Your task to perform on an android device: Add "bose soundlink mini" to the cart on ebay.com, then select checkout. Image 0: 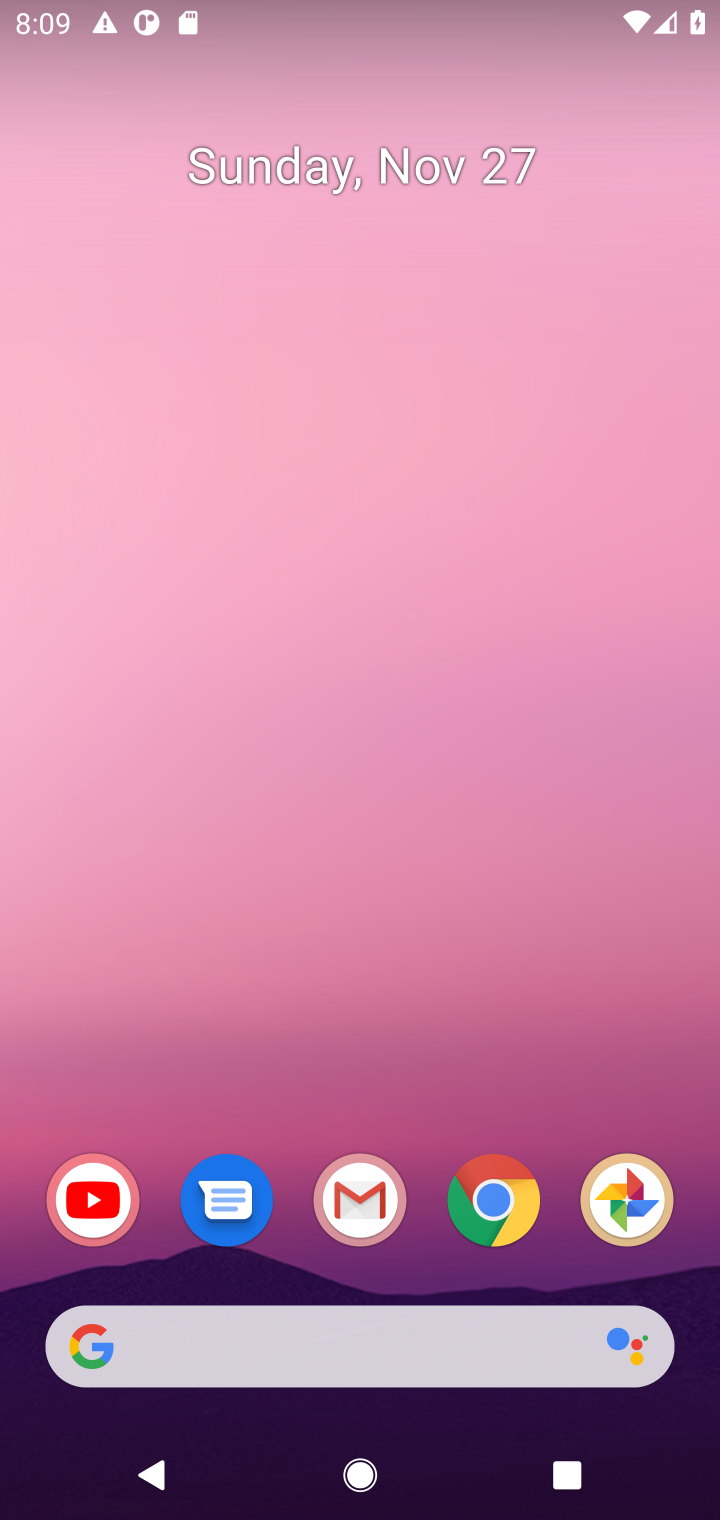
Step 0: click (494, 1199)
Your task to perform on an android device: Add "bose soundlink mini" to the cart on ebay.com, then select checkout. Image 1: 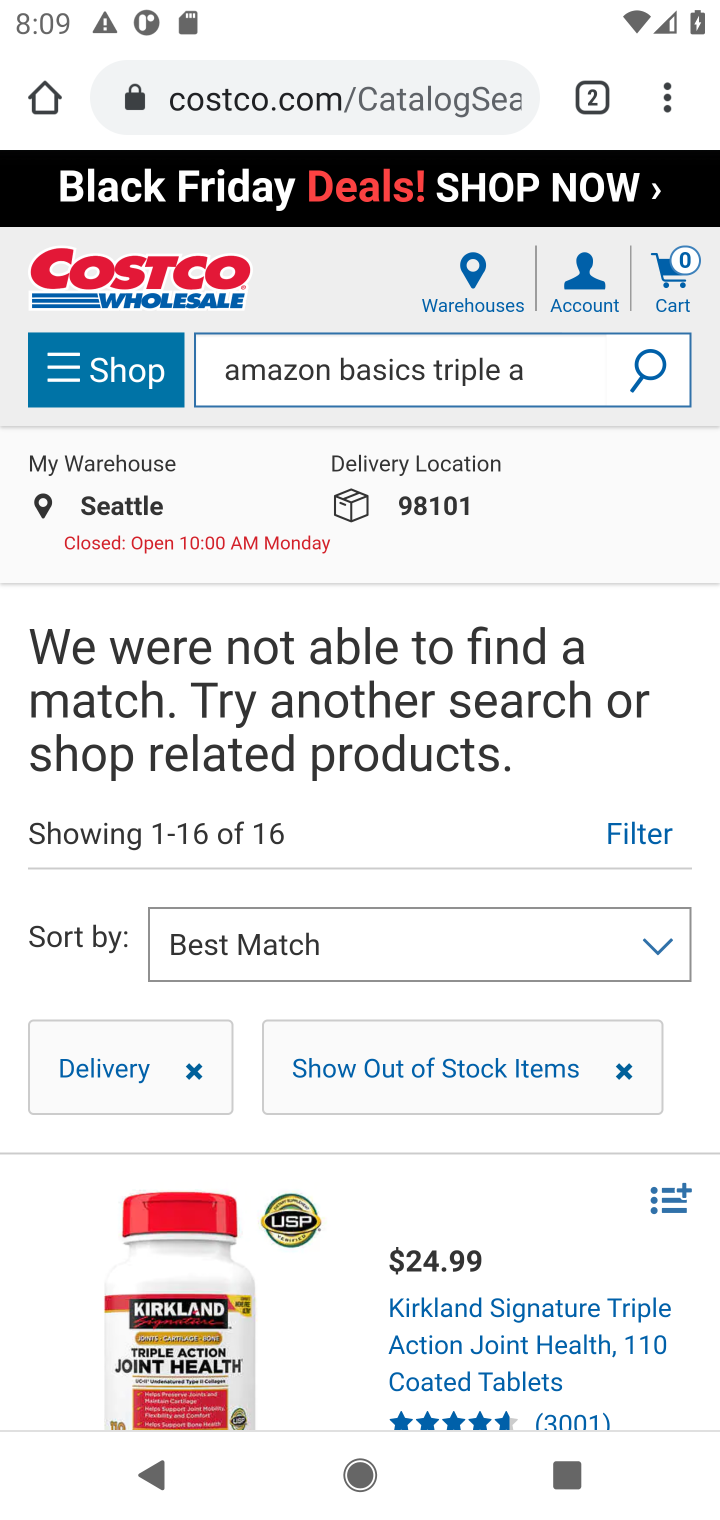
Step 1: click (375, 106)
Your task to perform on an android device: Add "bose soundlink mini" to the cart on ebay.com, then select checkout. Image 2: 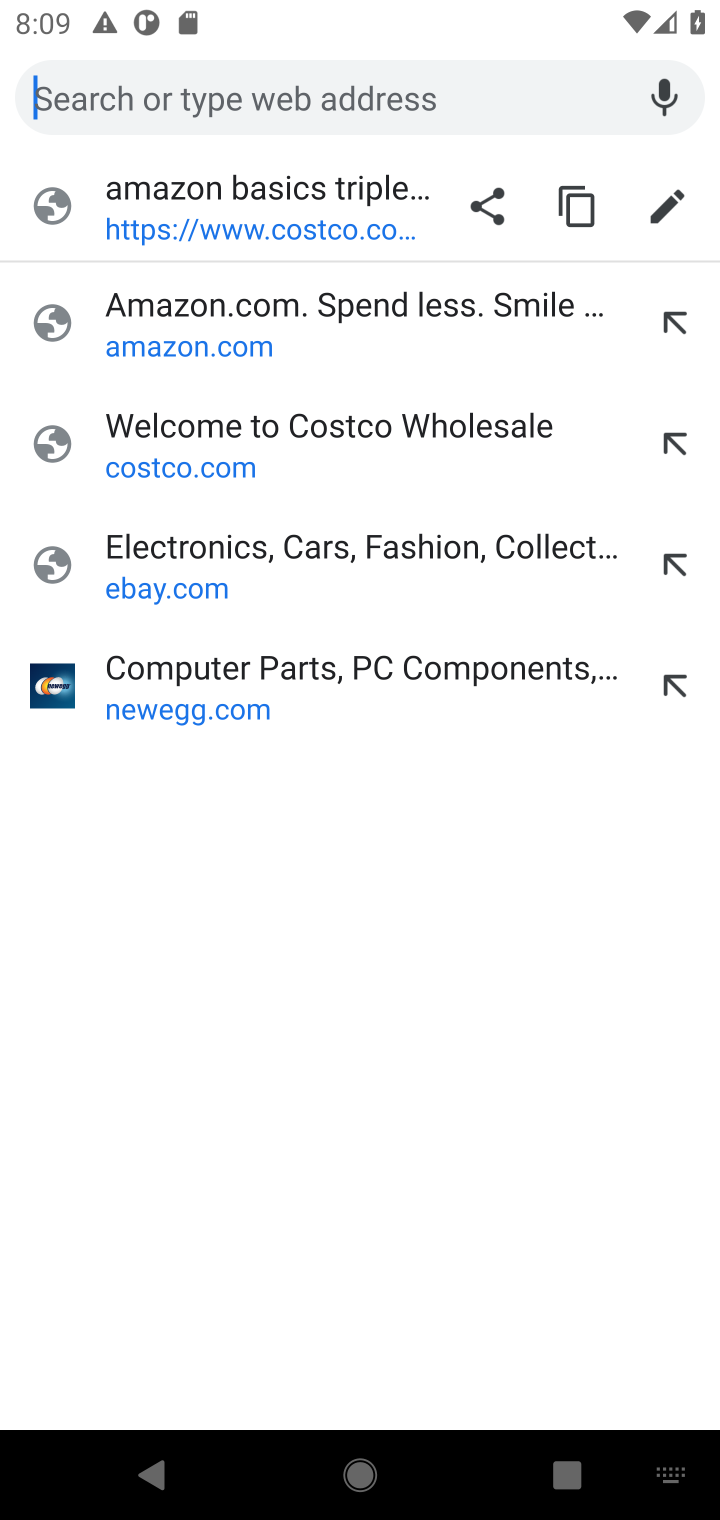
Step 2: click (143, 589)
Your task to perform on an android device: Add "bose soundlink mini" to the cart on ebay.com, then select checkout. Image 3: 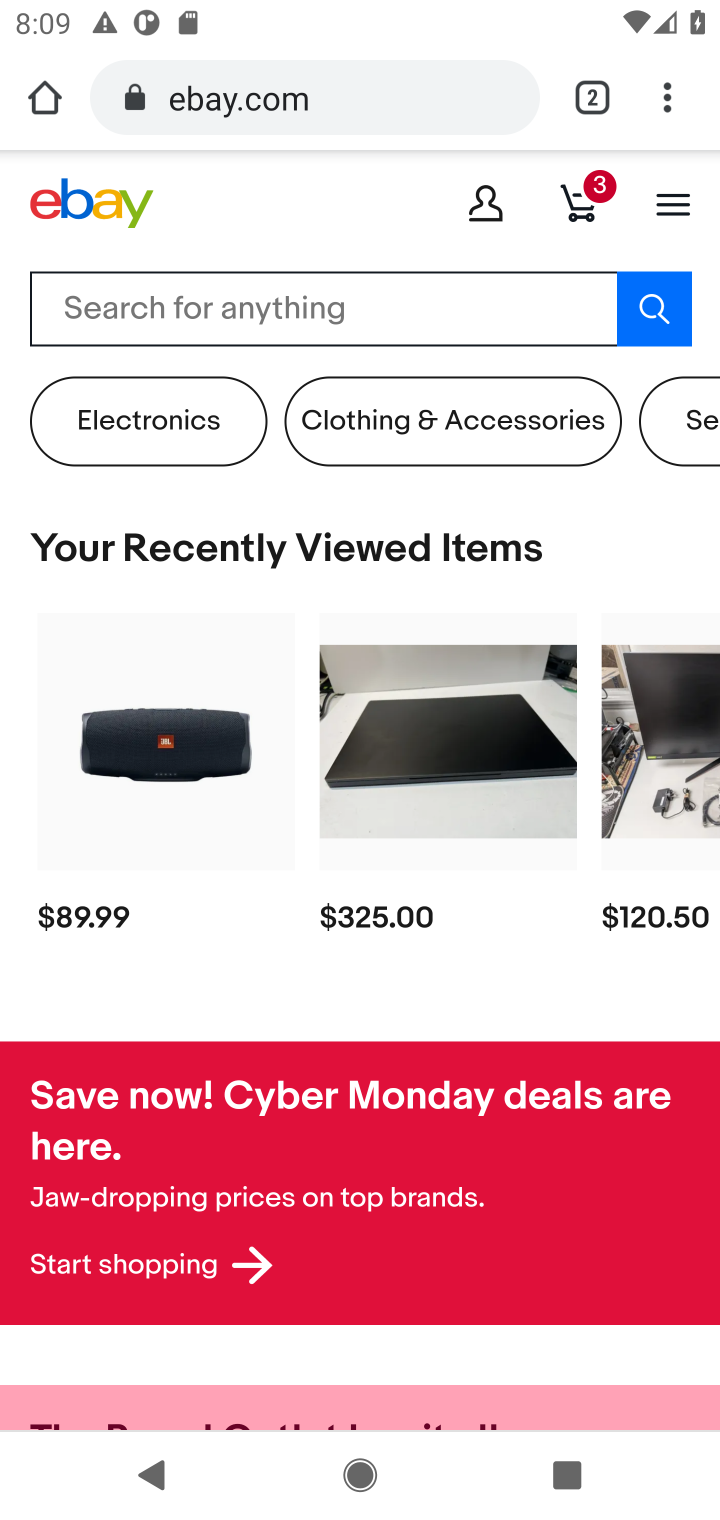
Step 3: click (214, 297)
Your task to perform on an android device: Add "bose soundlink mini" to the cart on ebay.com, then select checkout. Image 4: 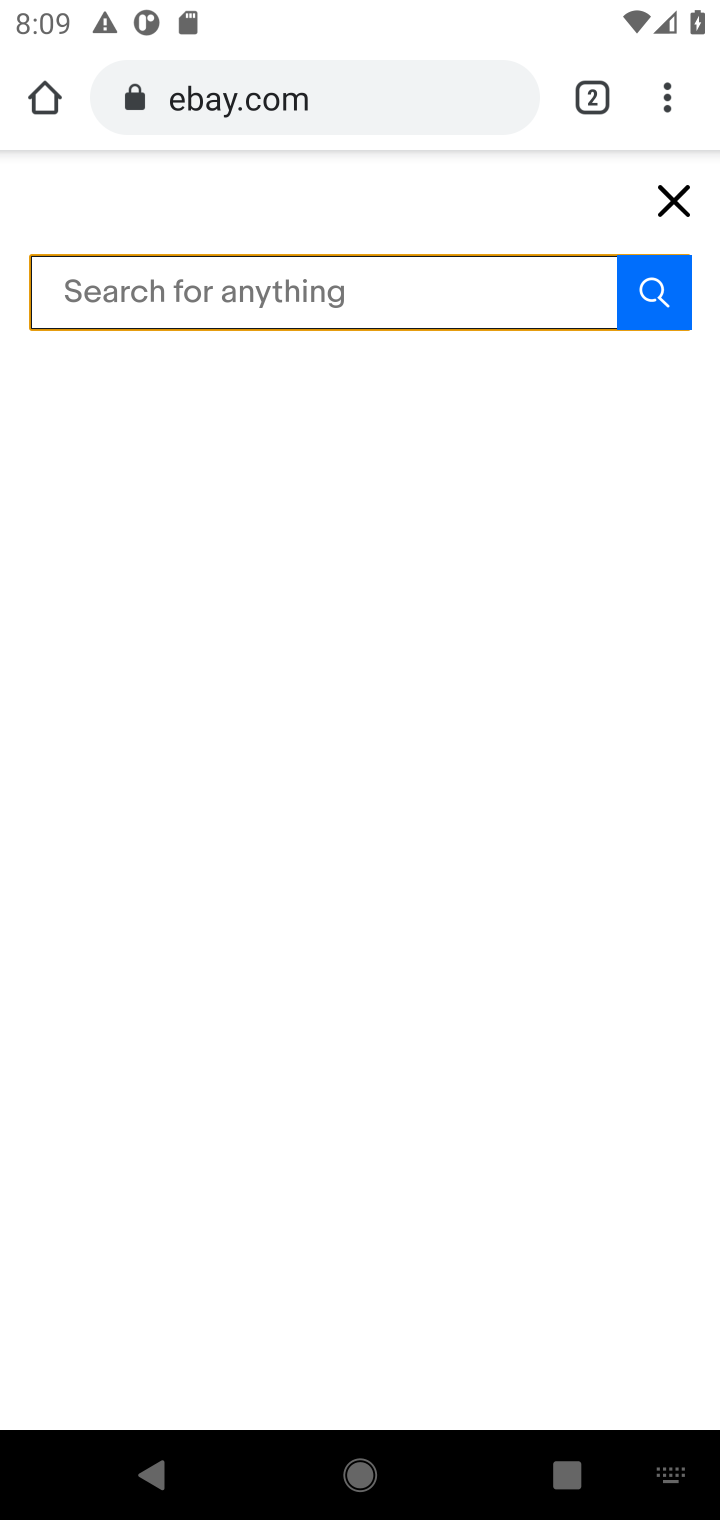
Step 4: type "bose soundlink mini"
Your task to perform on an android device: Add "bose soundlink mini" to the cart on ebay.com, then select checkout. Image 5: 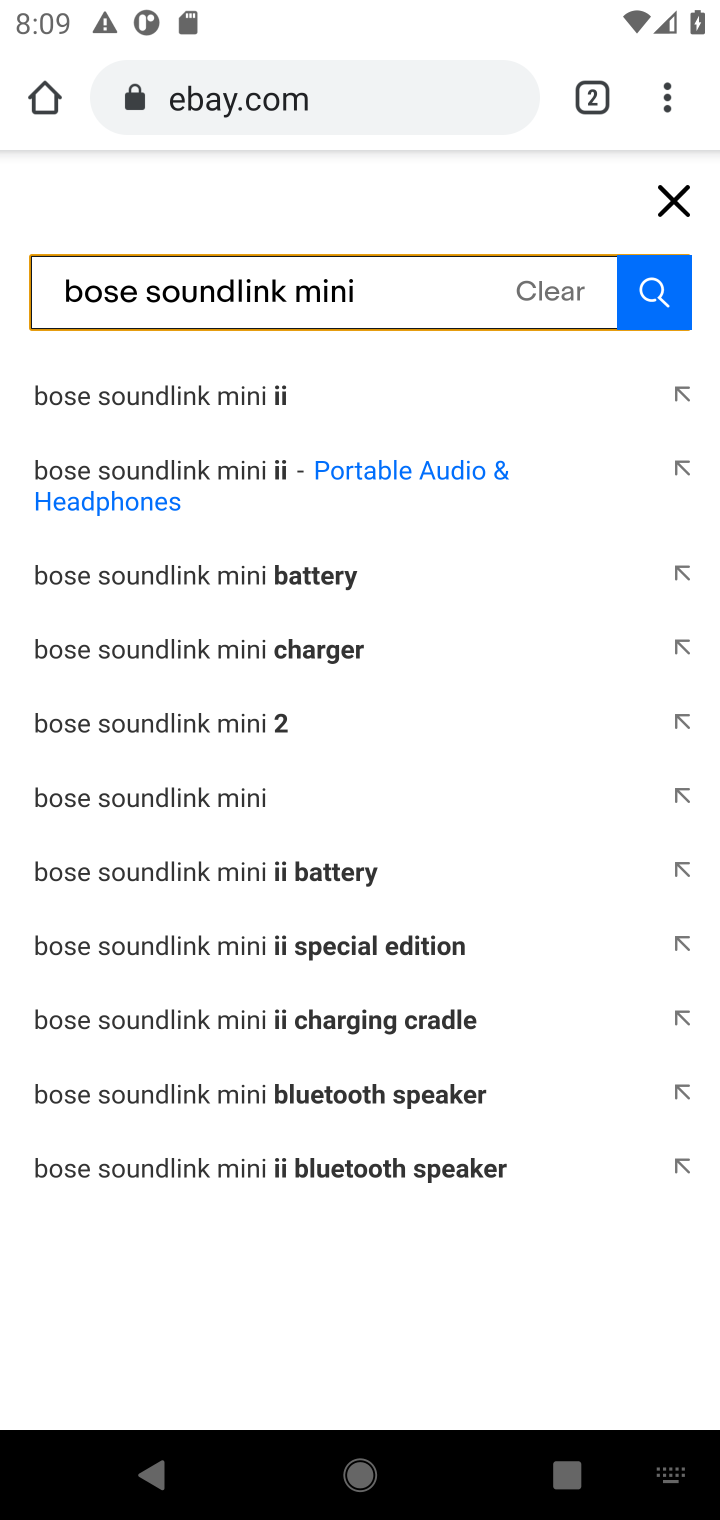
Step 5: click (205, 810)
Your task to perform on an android device: Add "bose soundlink mini" to the cart on ebay.com, then select checkout. Image 6: 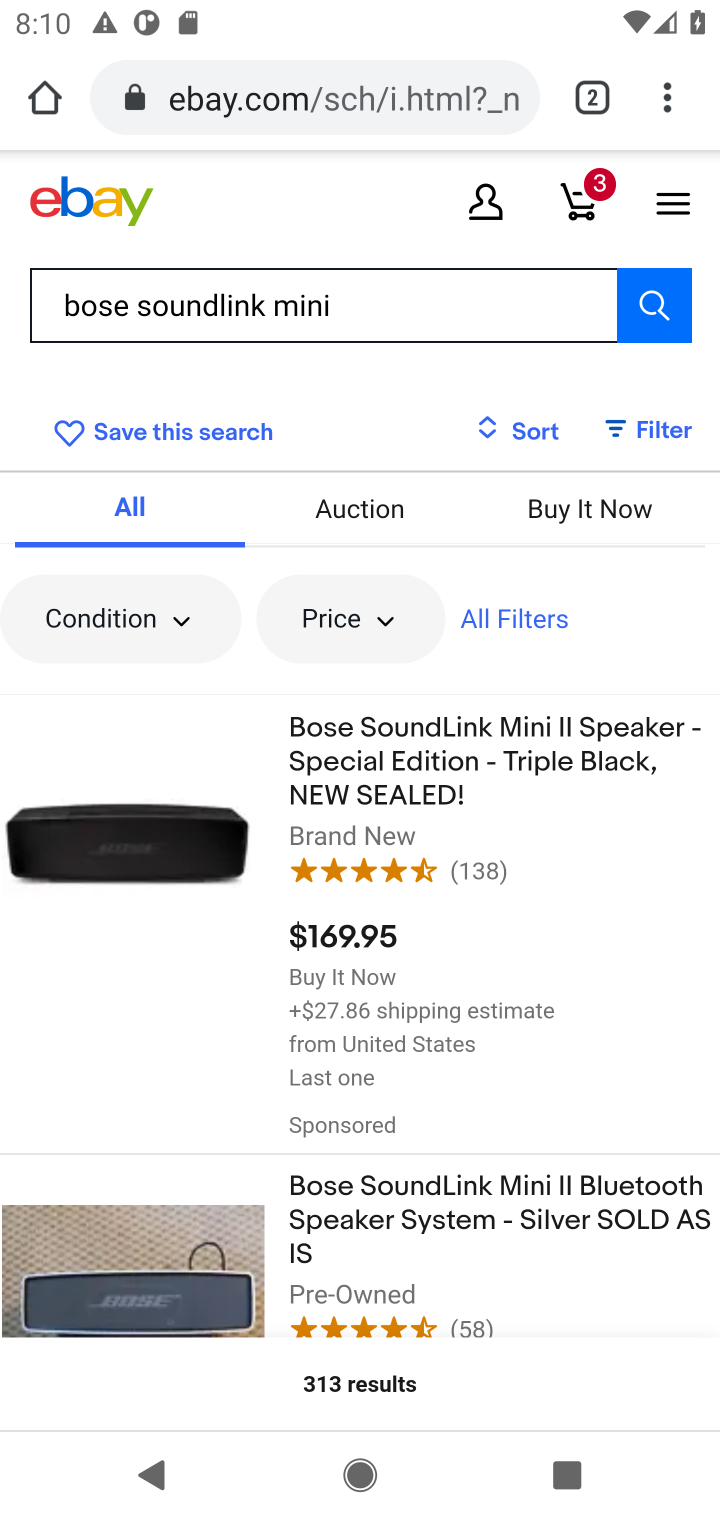
Step 6: click (172, 875)
Your task to perform on an android device: Add "bose soundlink mini" to the cart on ebay.com, then select checkout. Image 7: 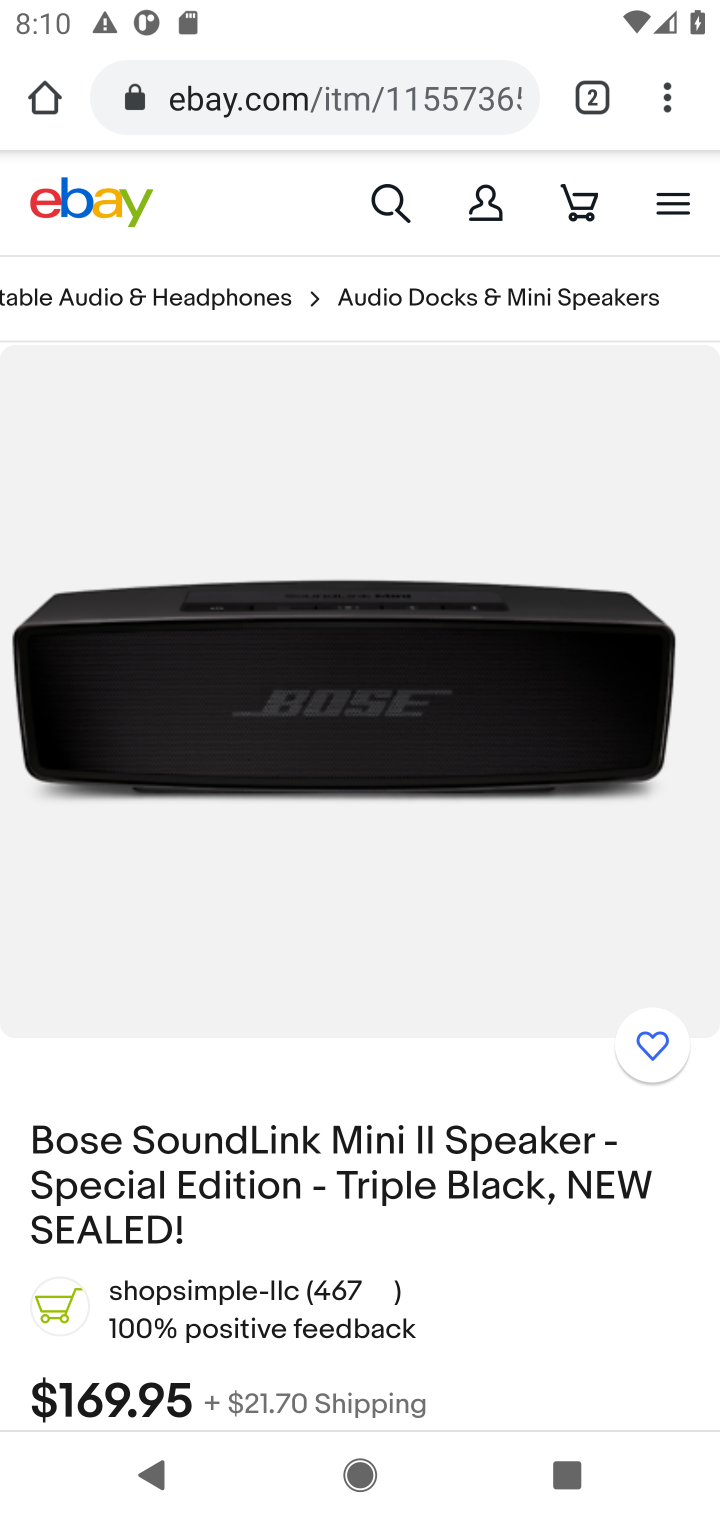
Step 7: drag from (287, 1159) to (312, 442)
Your task to perform on an android device: Add "bose soundlink mini" to the cart on ebay.com, then select checkout. Image 8: 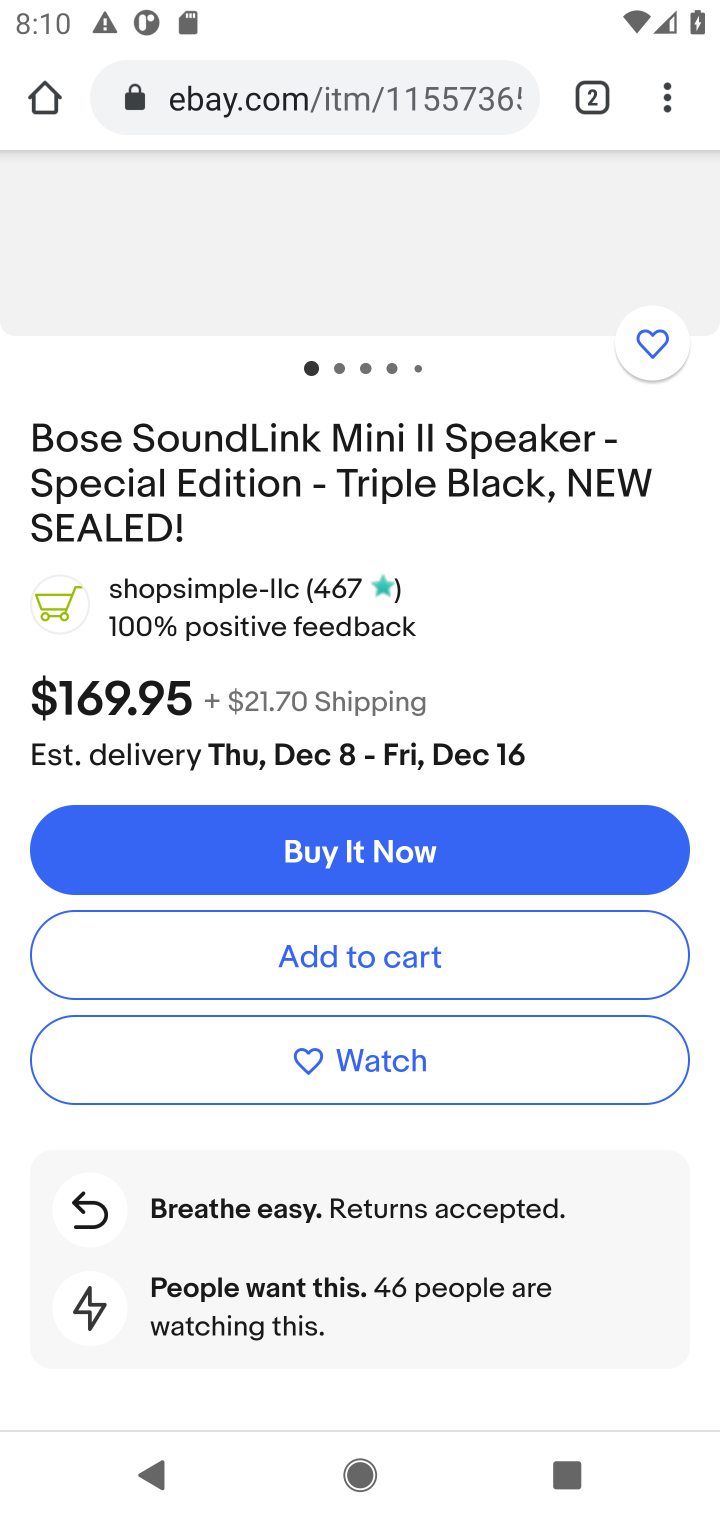
Step 8: click (334, 949)
Your task to perform on an android device: Add "bose soundlink mini" to the cart on ebay.com, then select checkout. Image 9: 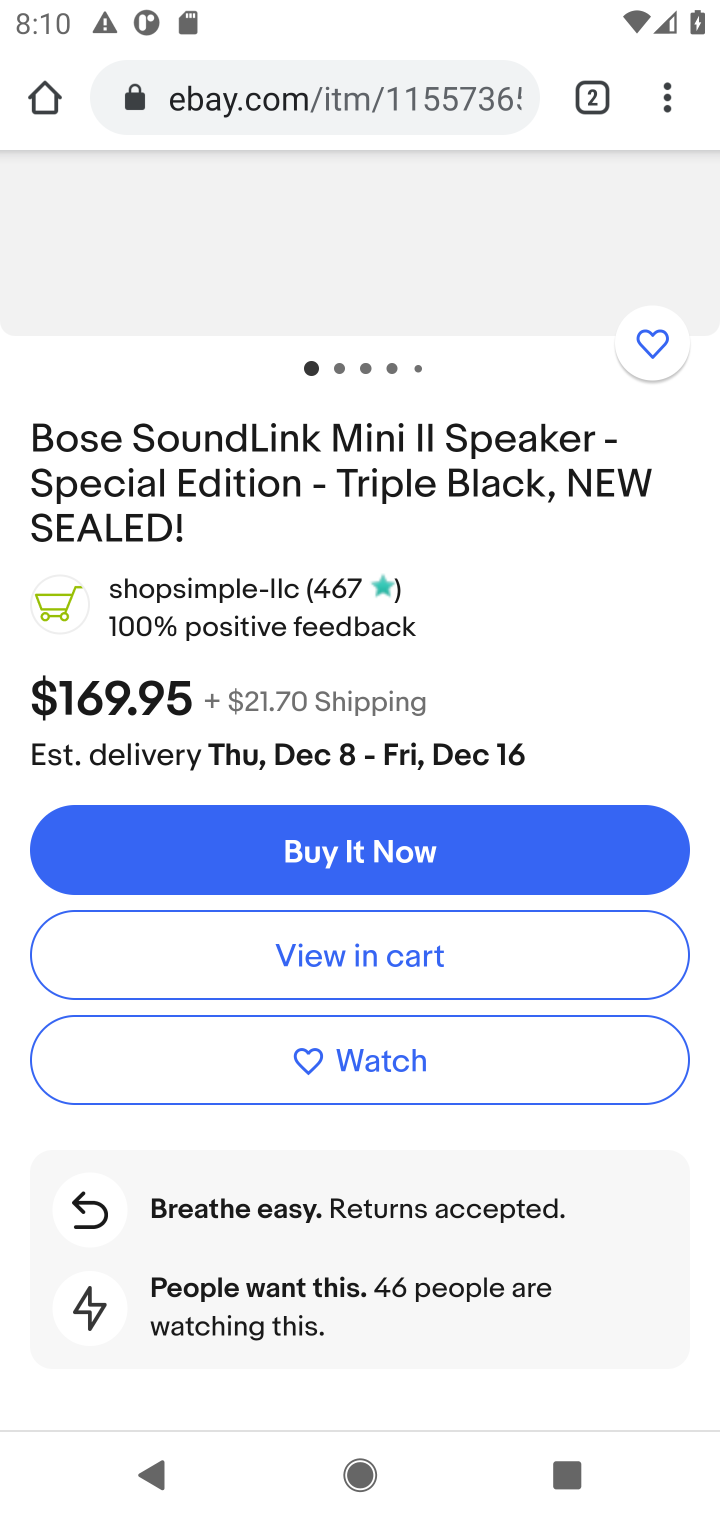
Step 9: click (334, 949)
Your task to perform on an android device: Add "bose soundlink mini" to the cart on ebay.com, then select checkout. Image 10: 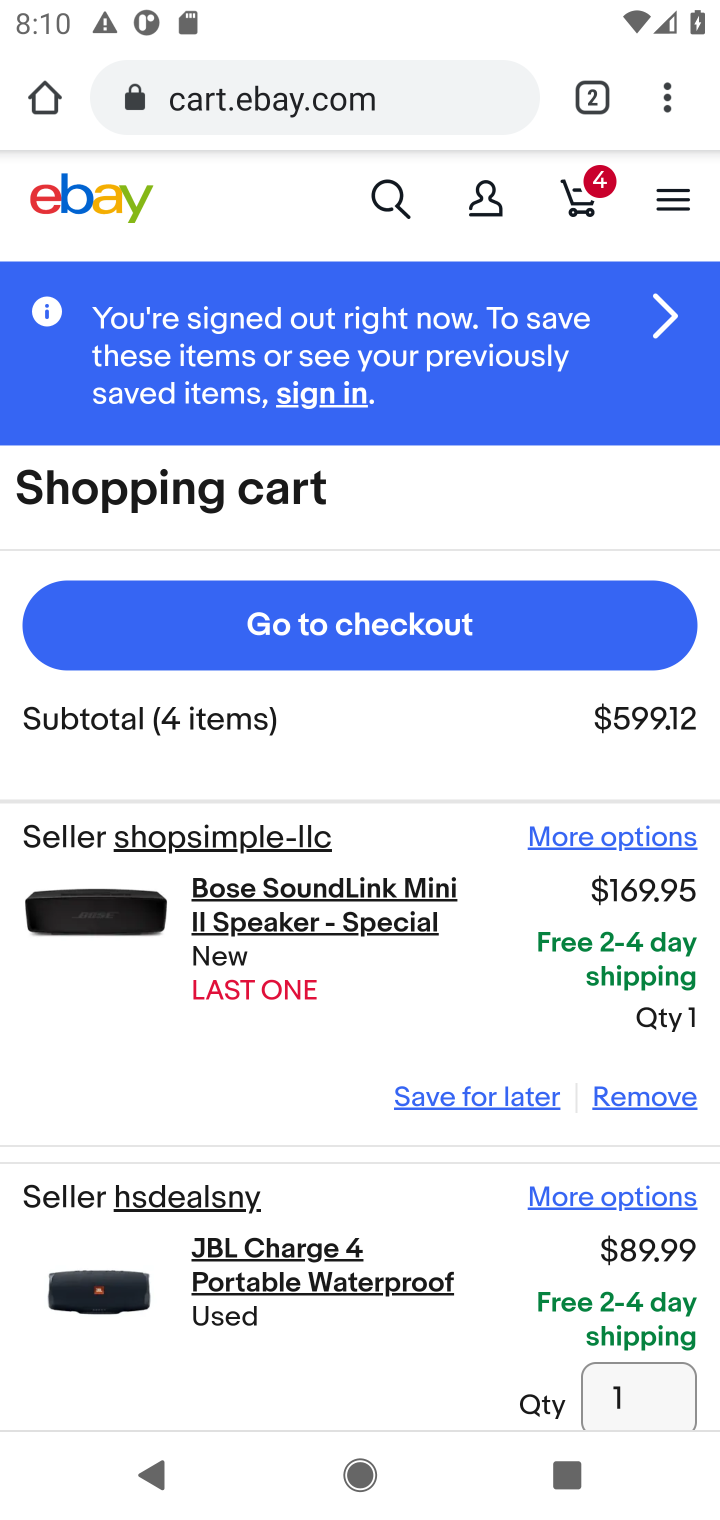
Step 10: click (382, 620)
Your task to perform on an android device: Add "bose soundlink mini" to the cart on ebay.com, then select checkout. Image 11: 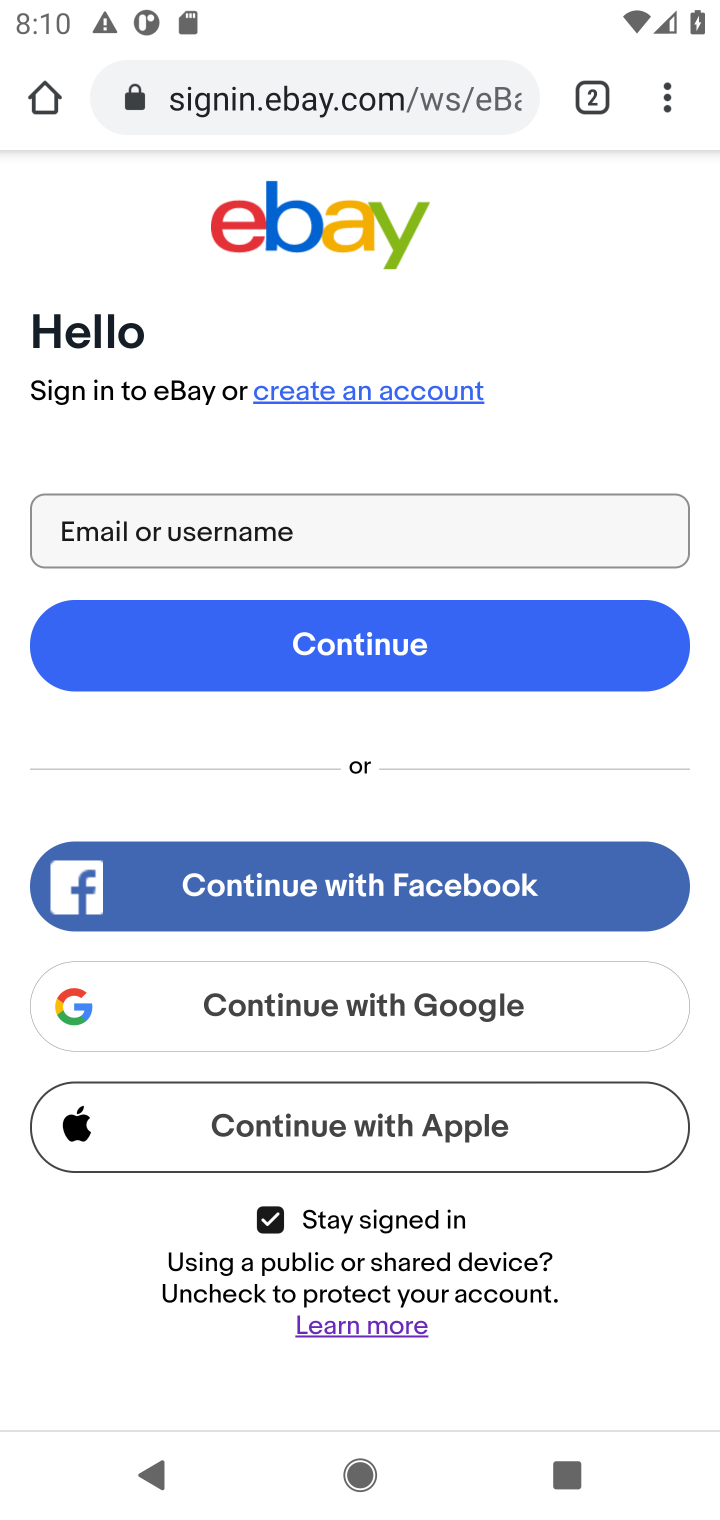
Step 11: task complete